Your task to perform on an android device: toggle airplane mode Image 0: 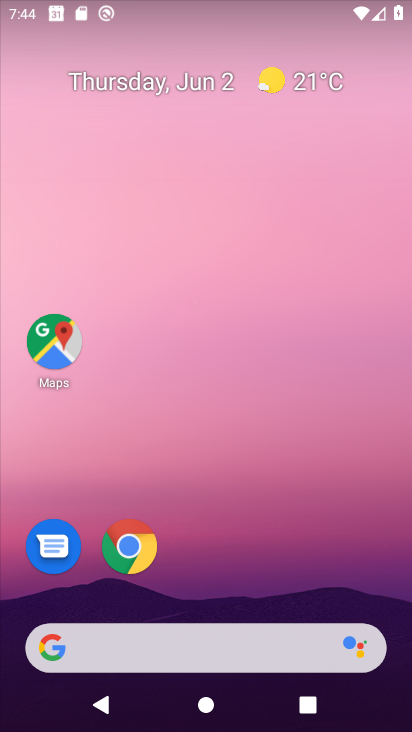
Step 0: drag from (296, 555) to (290, 180)
Your task to perform on an android device: toggle airplane mode Image 1: 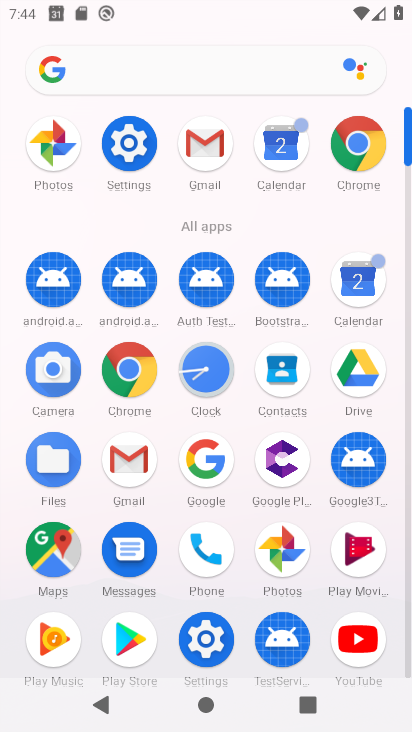
Step 1: click (131, 148)
Your task to perform on an android device: toggle airplane mode Image 2: 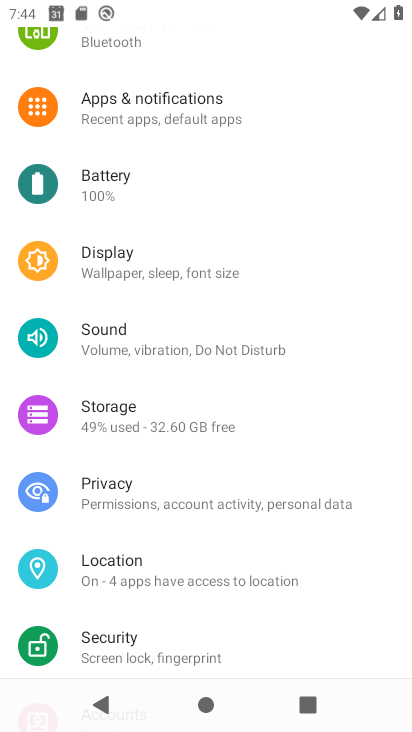
Step 2: drag from (158, 147) to (190, 461)
Your task to perform on an android device: toggle airplane mode Image 3: 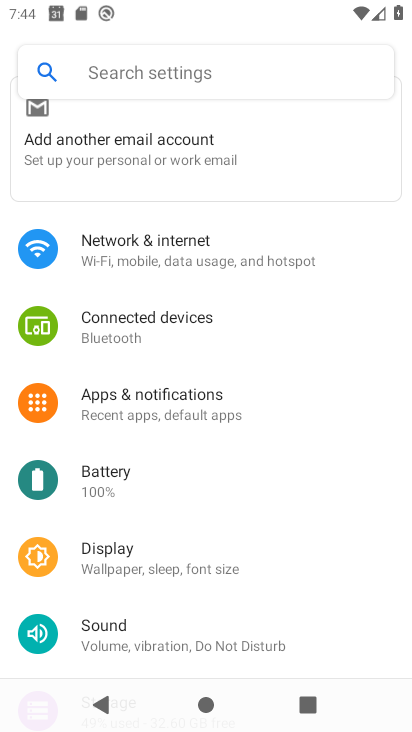
Step 3: click (134, 243)
Your task to perform on an android device: toggle airplane mode Image 4: 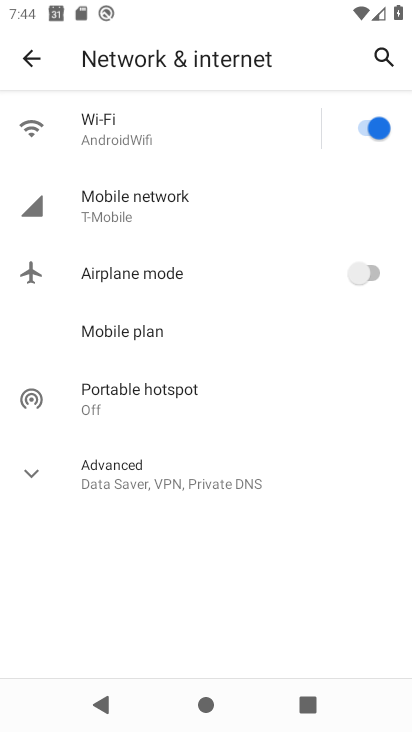
Step 4: click (363, 271)
Your task to perform on an android device: toggle airplane mode Image 5: 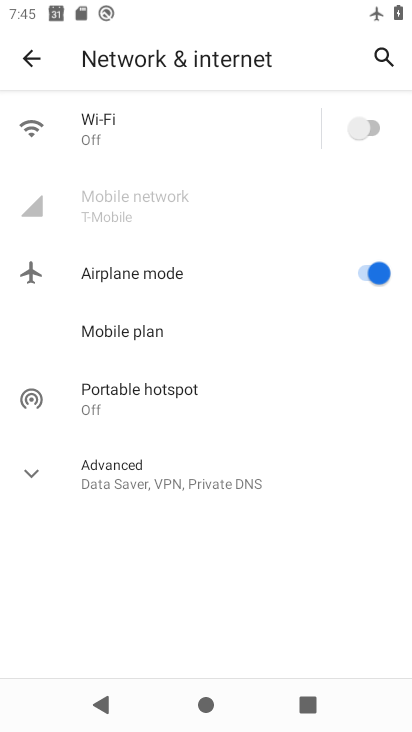
Step 5: task complete